Your task to perform on an android device: empty trash in the gmail app Image 0: 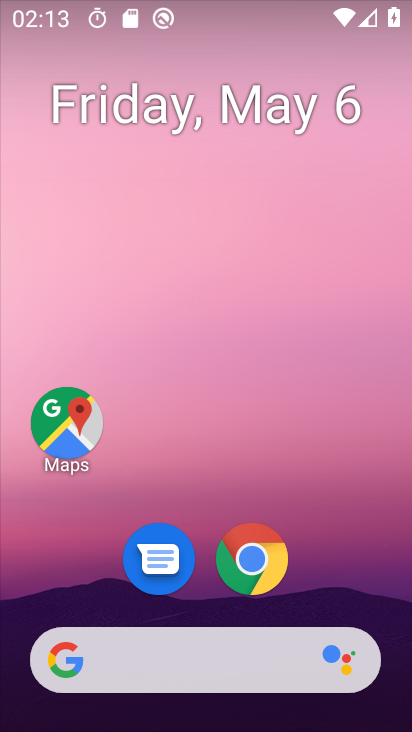
Step 0: drag from (329, 631) to (325, 15)
Your task to perform on an android device: empty trash in the gmail app Image 1: 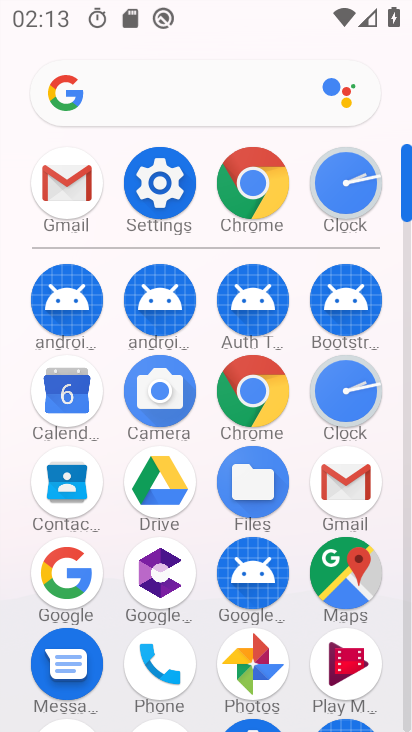
Step 1: click (352, 485)
Your task to perform on an android device: empty trash in the gmail app Image 2: 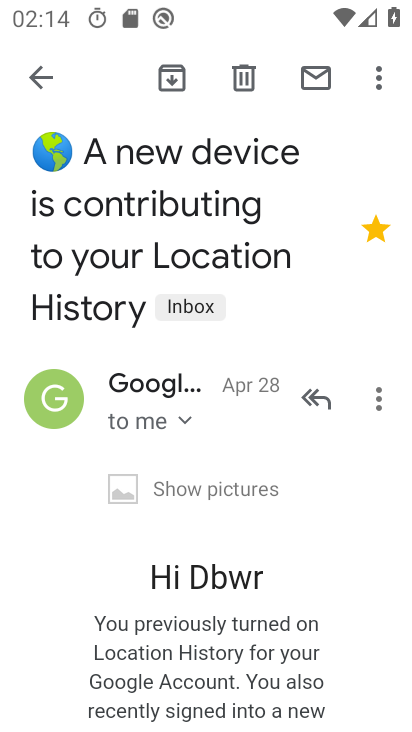
Step 2: press back button
Your task to perform on an android device: empty trash in the gmail app Image 3: 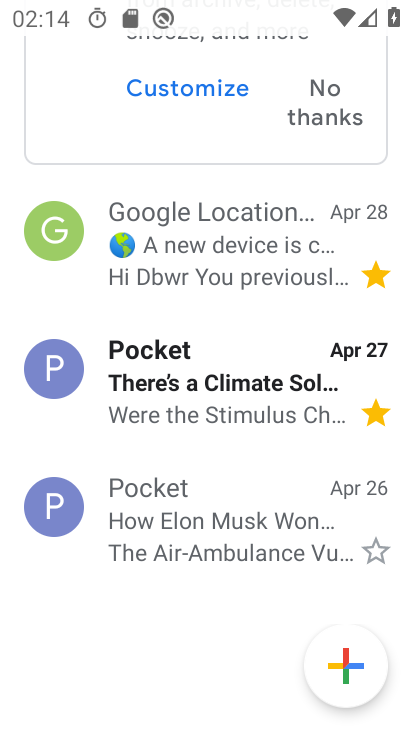
Step 3: drag from (256, 214) to (284, 612)
Your task to perform on an android device: empty trash in the gmail app Image 4: 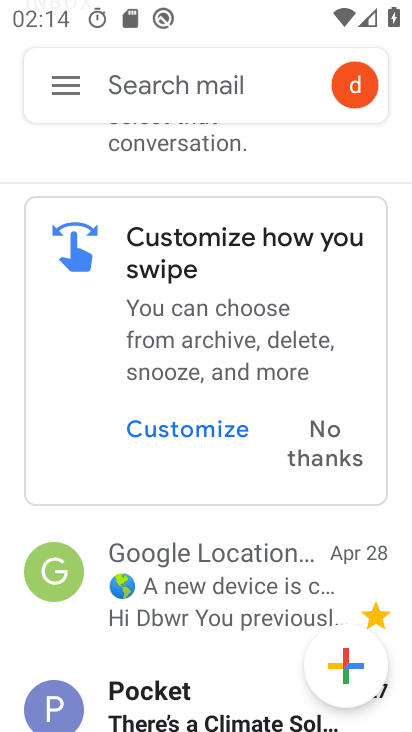
Step 4: click (345, 84)
Your task to perform on an android device: empty trash in the gmail app Image 5: 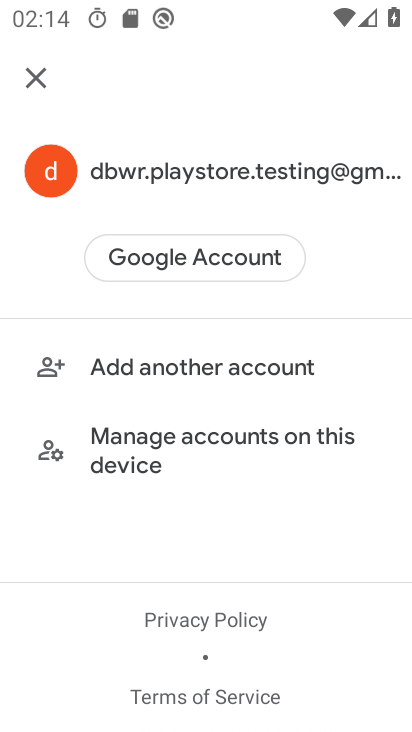
Step 5: press back button
Your task to perform on an android device: empty trash in the gmail app Image 6: 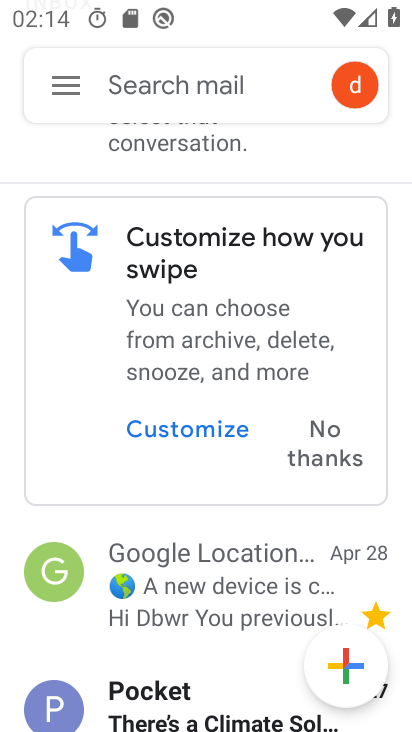
Step 6: click (61, 89)
Your task to perform on an android device: empty trash in the gmail app Image 7: 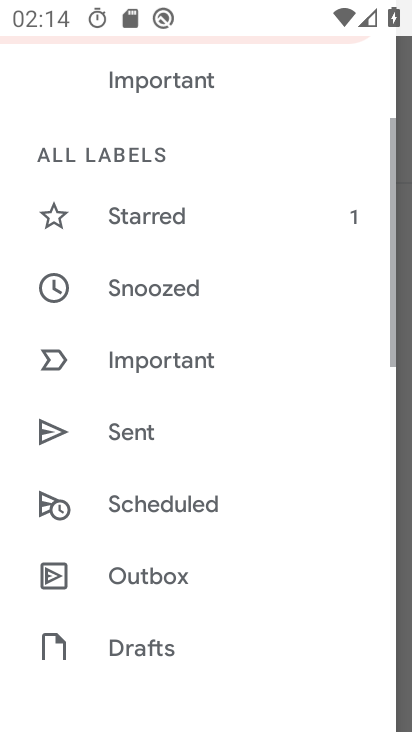
Step 7: drag from (251, 616) to (217, 125)
Your task to perform on an android device: empty trash in the gmail app Image 8: 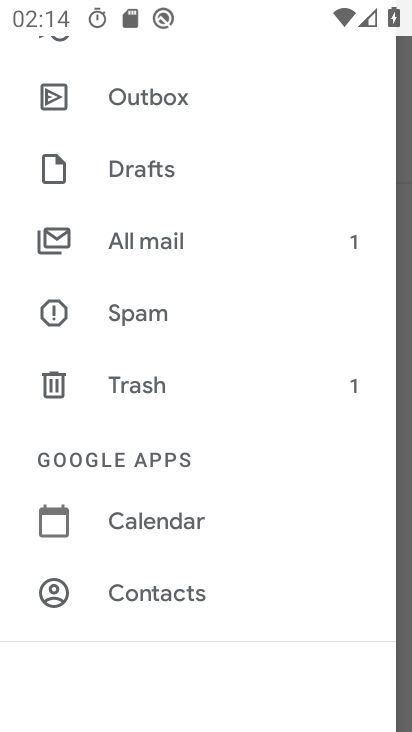
Step 8: click (170, 381)
Your task to perform on an android device: empty trash in the gmail app Image 9: 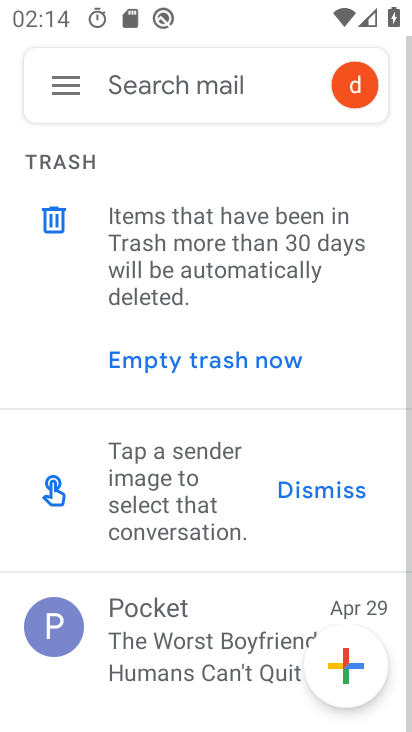
Step 9: drag from (234, 574) to (215, 349)
Your task to perform on an android device: empty trash in the gmail app Image 10: 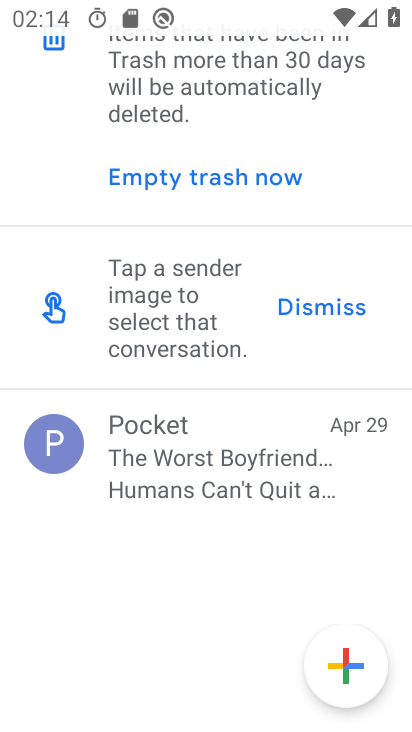
Step 10: click (213, 186)
Your task to perform on an android device: empty trash in the gmail app Image 11: 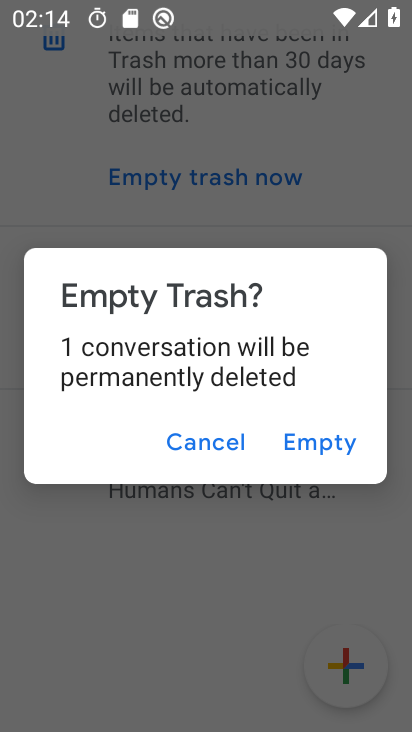
Step 11: click (315, 446)
Your task to perform on an android device: empty trash in the gmail app Image 12: 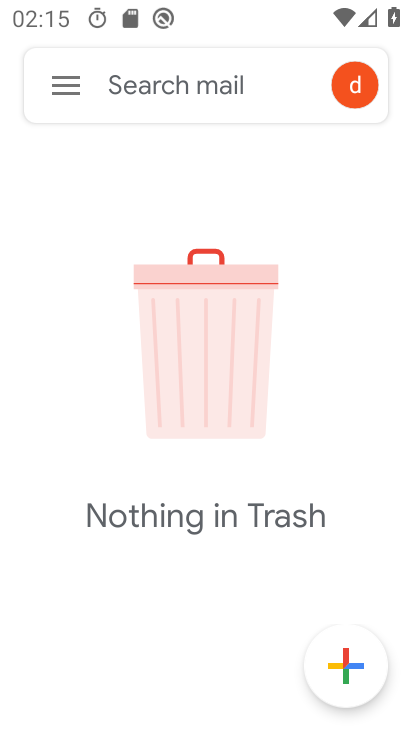
Step 12: task complete